Your task to perform on an android device: star an email in the gmail app Image 0: 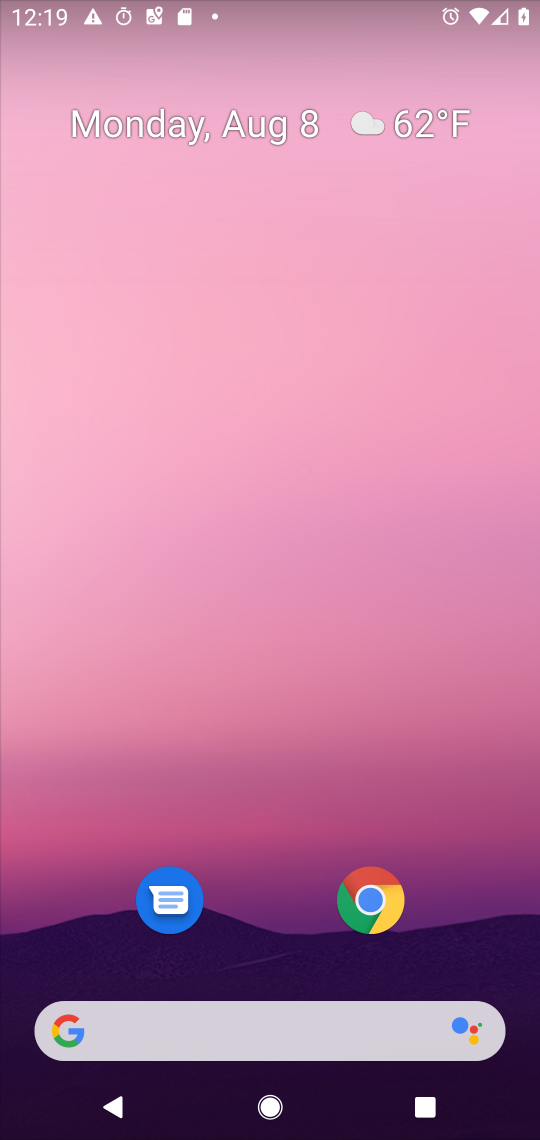
Step 0: drag from (285, 972) to (316, 123)
Your task to perform on an android device: star an email in the gmail app Image 1: 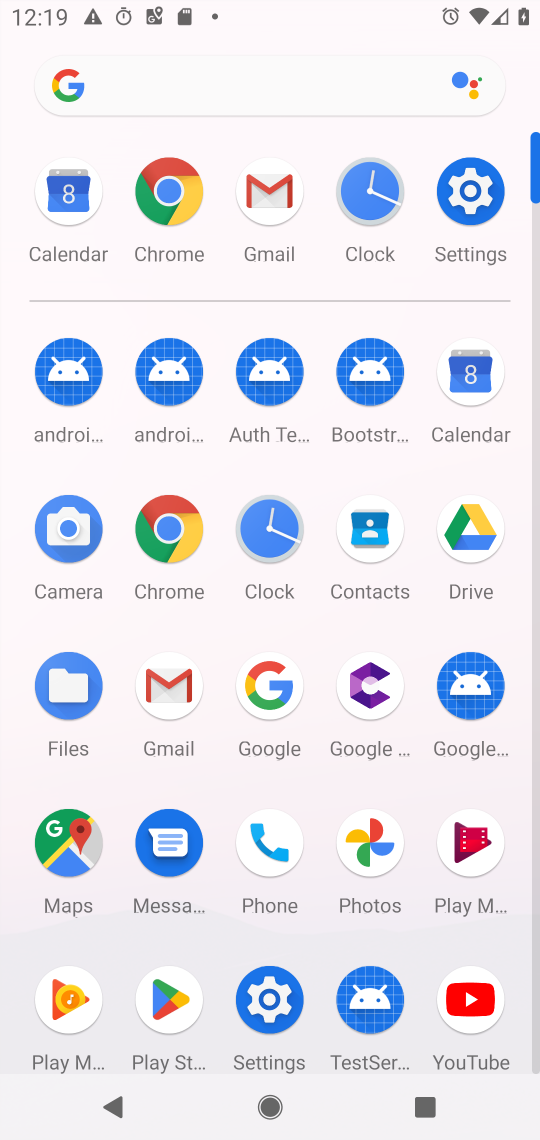
Step 1: click (269, 178)
Your task to perform on an android device: star an email in the gmail app Image 2: 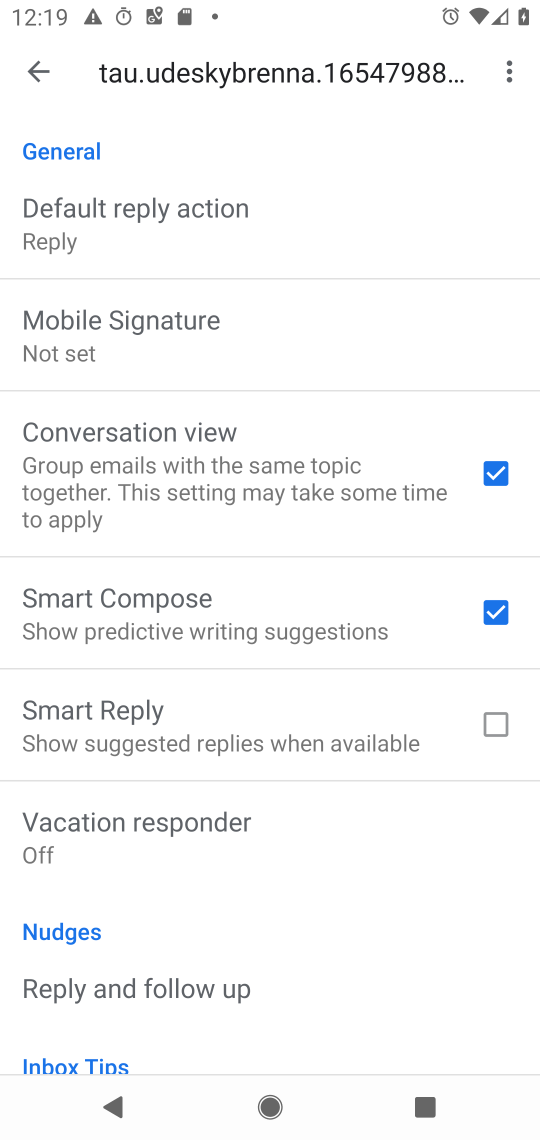
Step 2: click (38, 73)
Your task to perform on an android device: star an email in the gmail app Image 3: 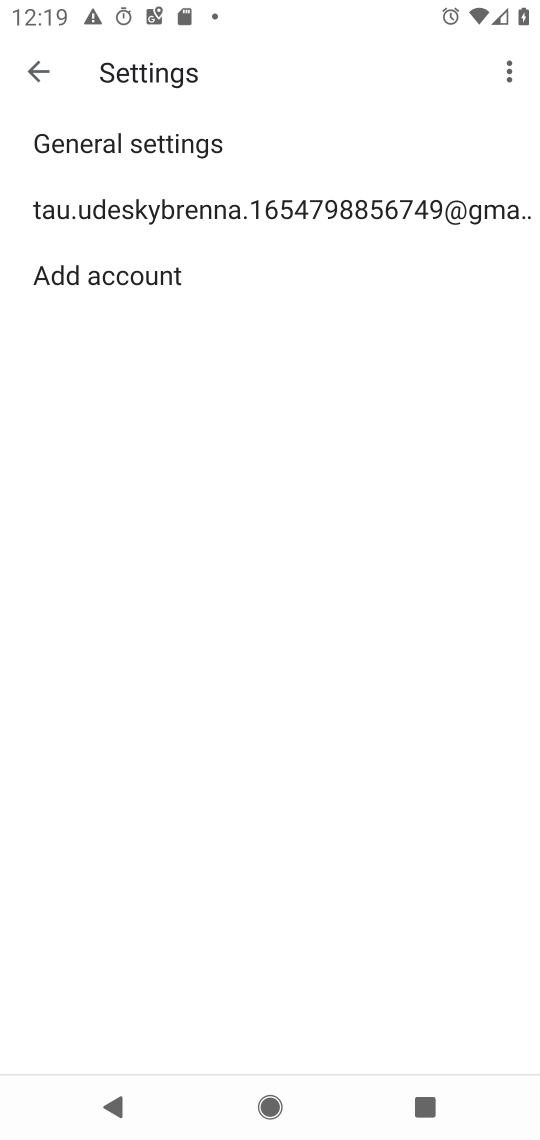
Step 3: click (38, 59)
Your task to perform on an android device: star an email in the gmail app Image 4: 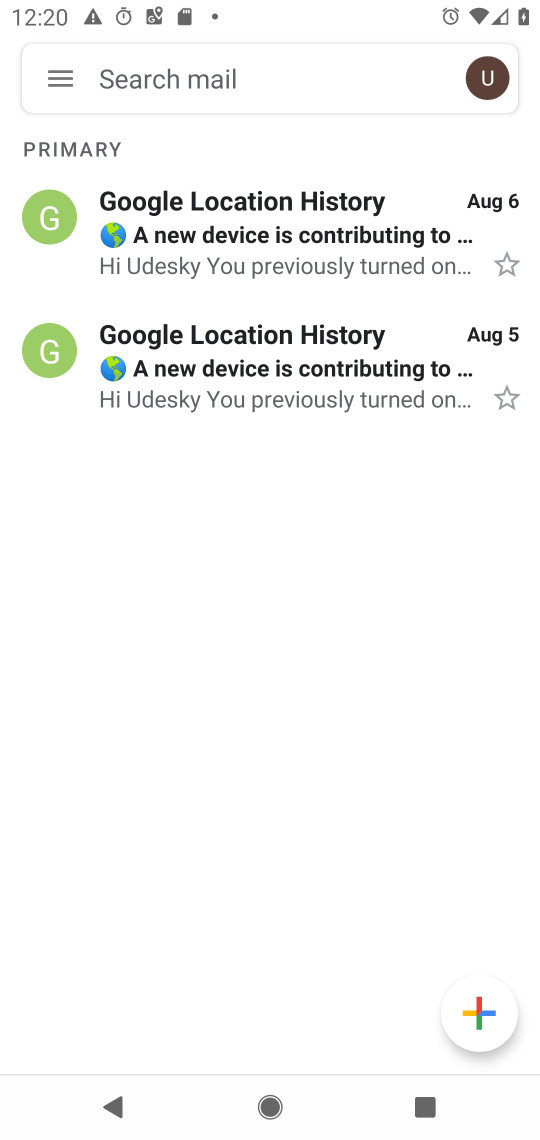
Step 4: click (507, 261)
Your task to perform on an android device: star an email in the gmail app Image 5: 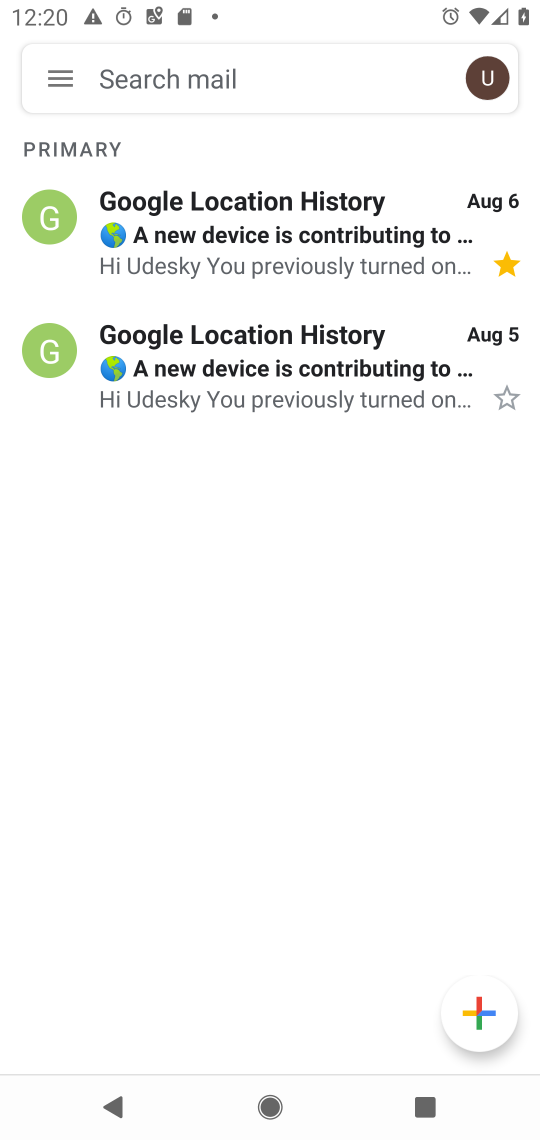
Step 5: task complete